Your task to perform on an android device: See recent photos Image 0: 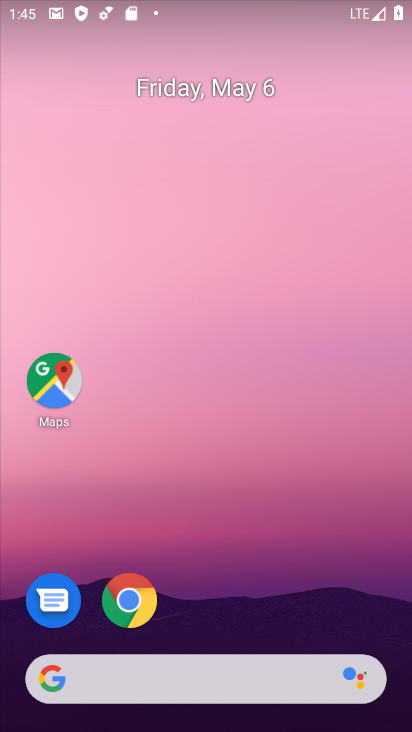
Step 0: drag from (177, 627) to (283, 90)
Your task to perform on an android device: See recent photos Image 1: 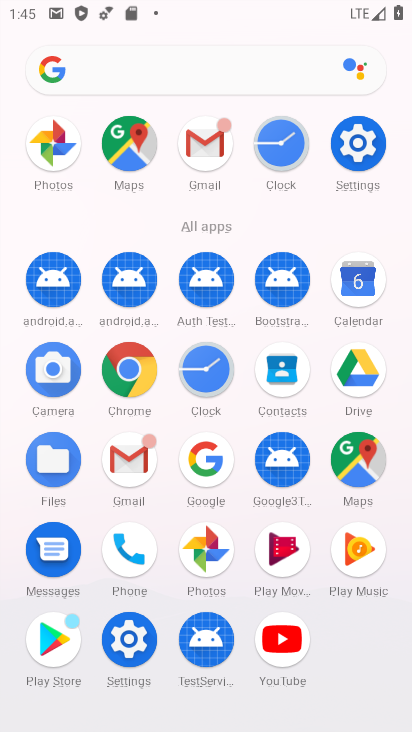
Step 1: click (210, 564)
Your task to perform on an android device: See recent photos Image 2: 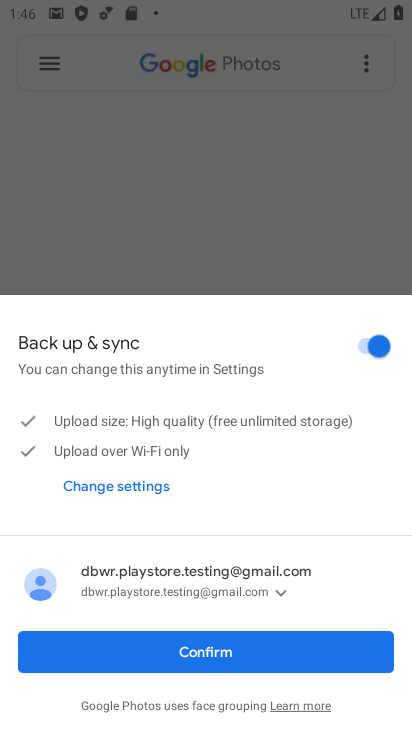
Step 2: click (196, 666)
Your task to perform on an android device: See recent photos Image 3: 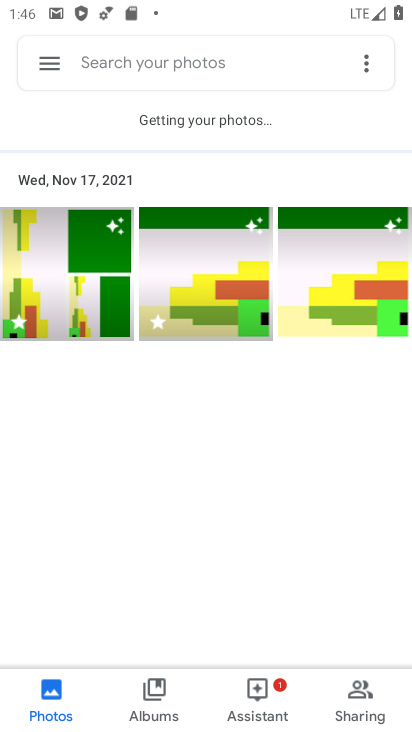
Step 3: task complete